Your task to perform on an android device: turn on translation in the chrome app Image 0: 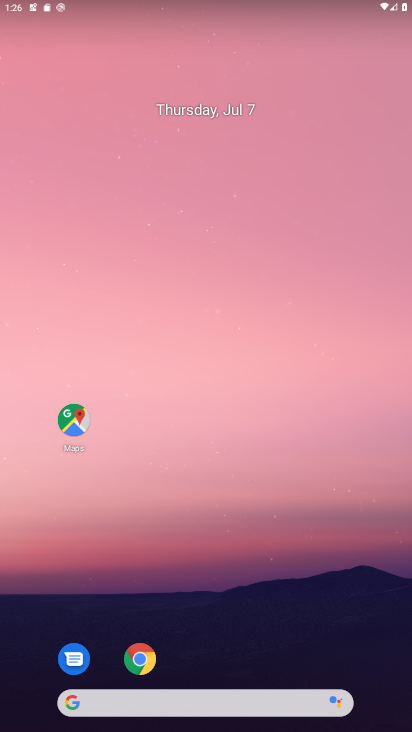
Step 0: drag from (235, 619) to (279, 137)
Your task to perform on an android device: turn on translation in the chrome app Image 1: 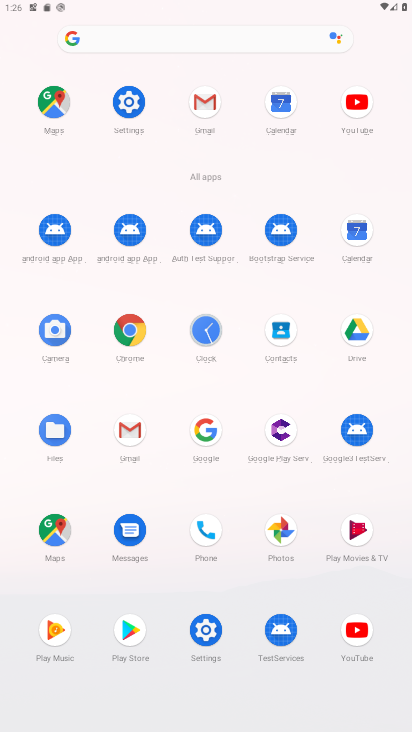
Step 1: click (131, 328)
Your task to perform on an android device: turn on translation in the chrome app Image 2: 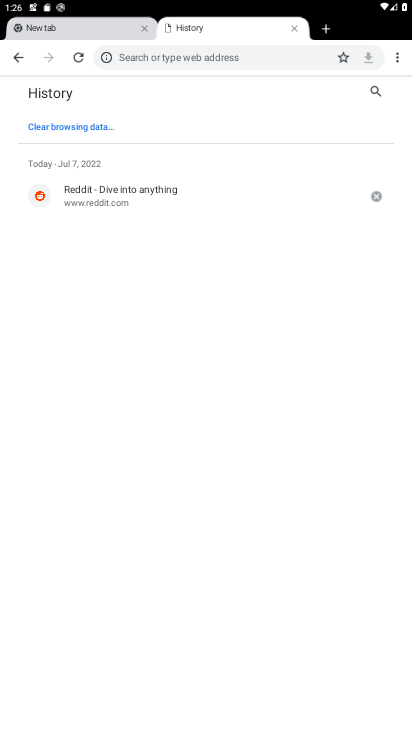
Step 2: click (393, 51)
Your task to perform on an android device: turn on translation in the chrome app Image 3: 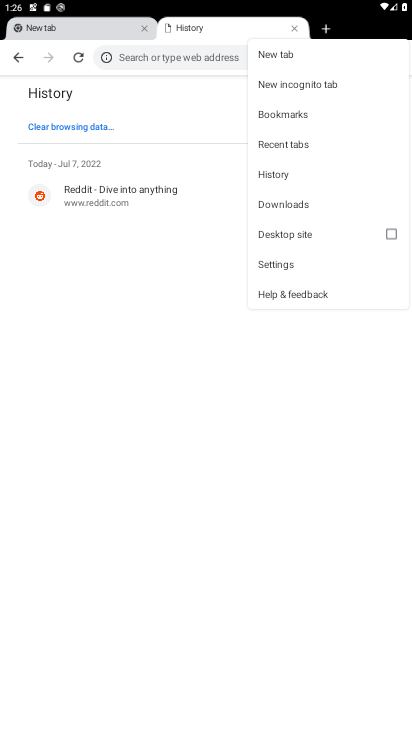
Step 3: click (288, 259)
Your task to perform on an android device: turn on translation in the chrome app Image 4: 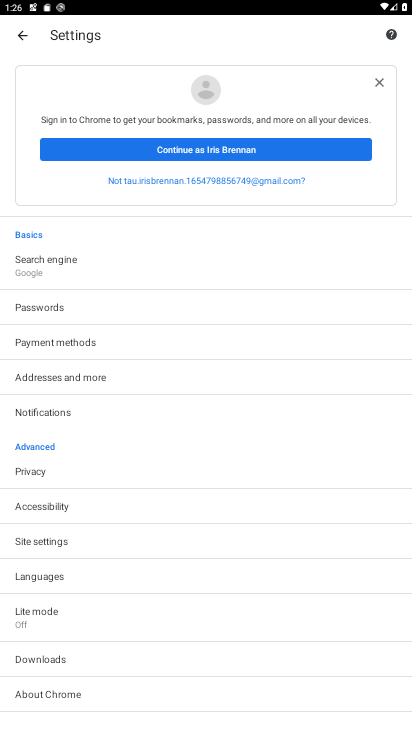
Step 4: click (76, 578)
Your task to perform on an android device: turn on translation in the chrome app Image 5: 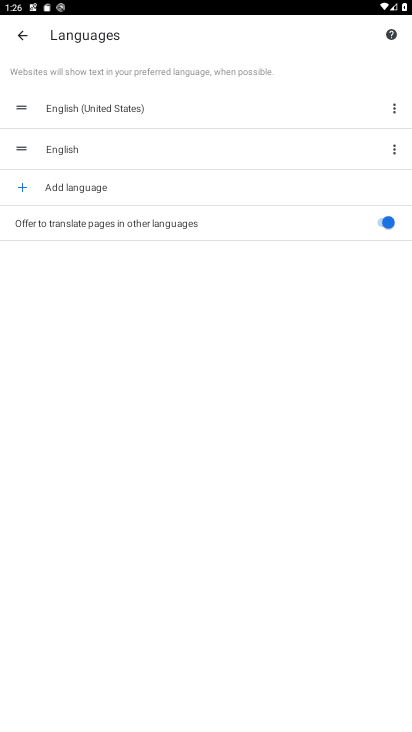
Step 5: task complete